Your task to perform on an android device: Search for seafood restaurants on Google Maps Image 0: 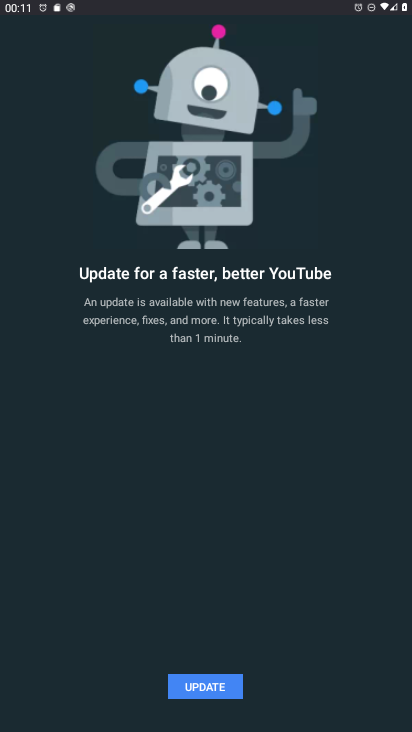
Step 0: press home button
Your task to perform on an android device: Search for seafood restaurants on Google Maps Image 1: 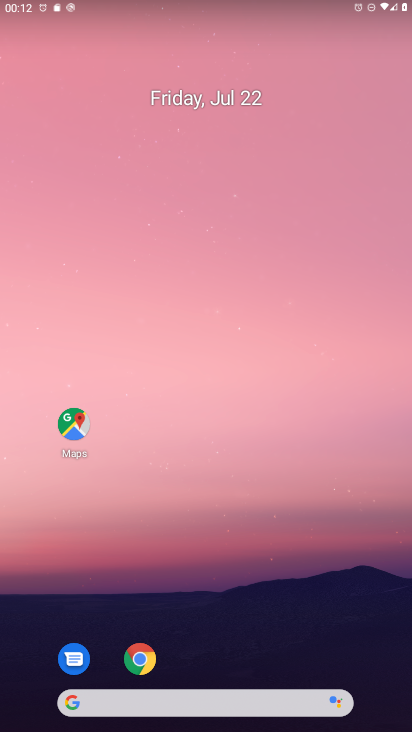
Step 1: click (71, 423)
Your task to perform on an android device: Search for seafood restaurants on Google Maps Image 2: 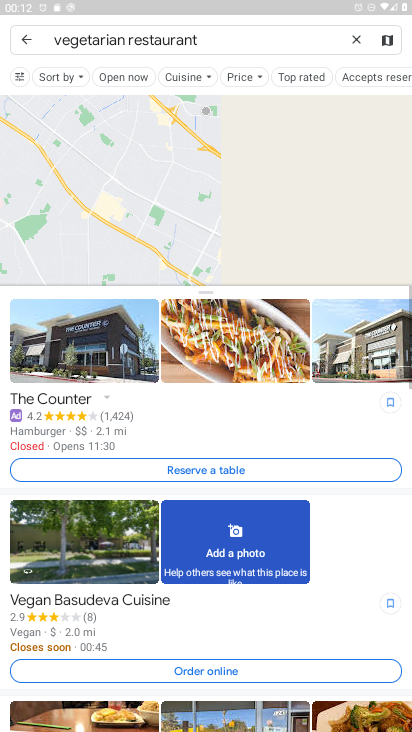
Step 2: click (354, 35)
Your task to perform on an android device: Search for seafood restaurants on Google Maps Image 3: 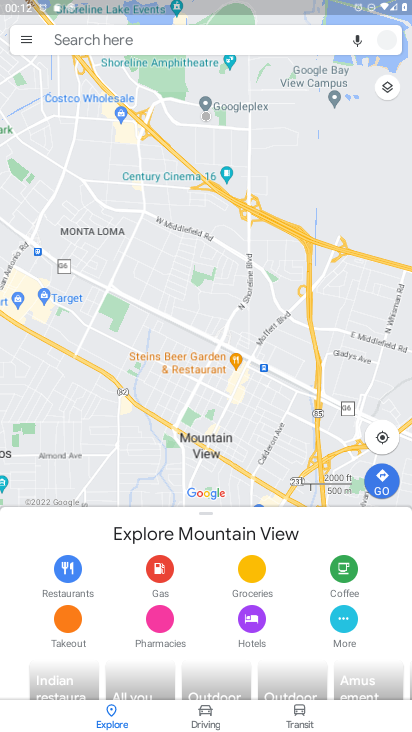
Step 3: click (234, 41)
Your task to perform on an android device: Search for seafood restaurants on Google Maps Image 4: 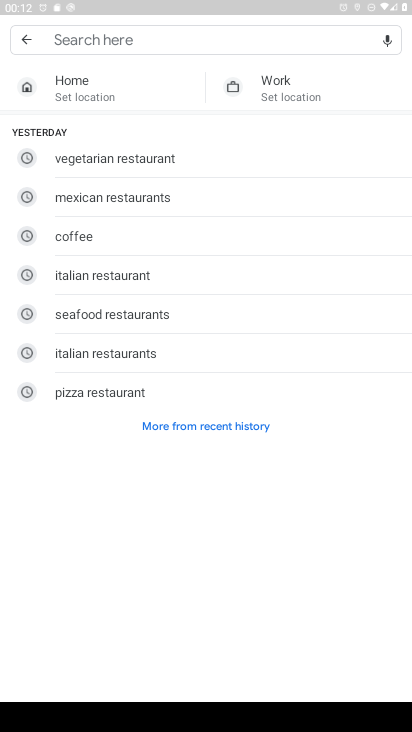
Step 4: type "seafood restaurants"
Your task to perform on an android device: Search for seafood restaurants on Google Maps Image 5: 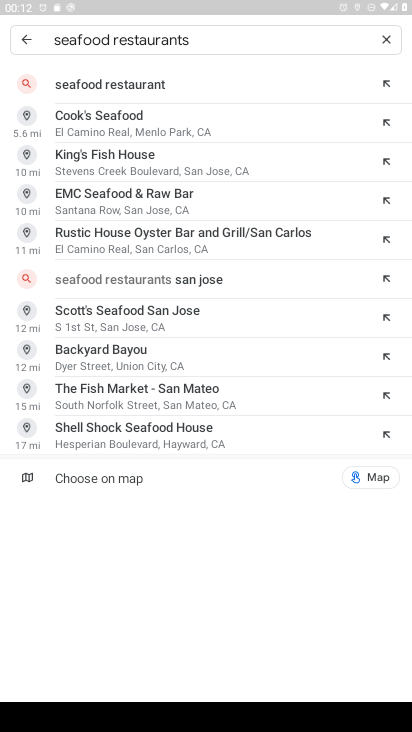
Step 5: click (154, 87)
Your task to perform on an android device: Search for seafood restaurants on Google Maps Image 6: 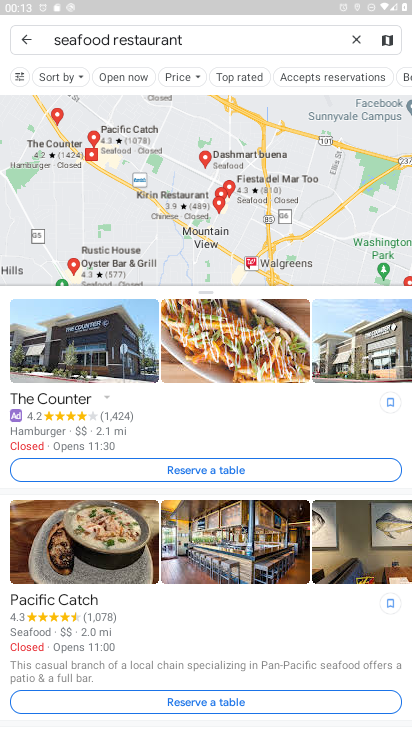
Step 6: task complete